Your task to perform on an android device: toggle notification dots Image 0: 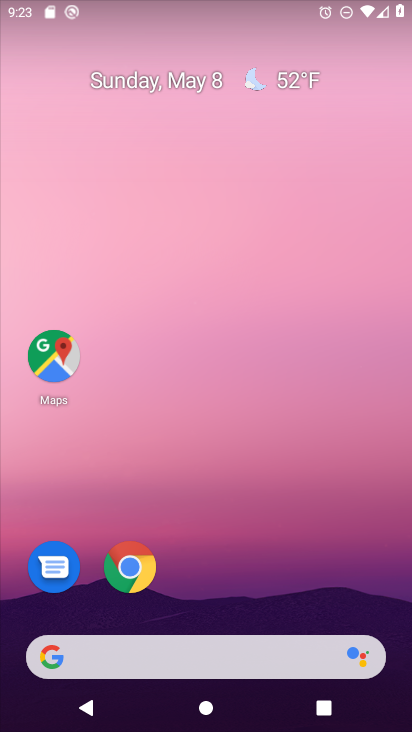
Step 0: drag from (310, 601) to (152, 105)
Your task to perform on an android device: toggle notification dots Image 1: 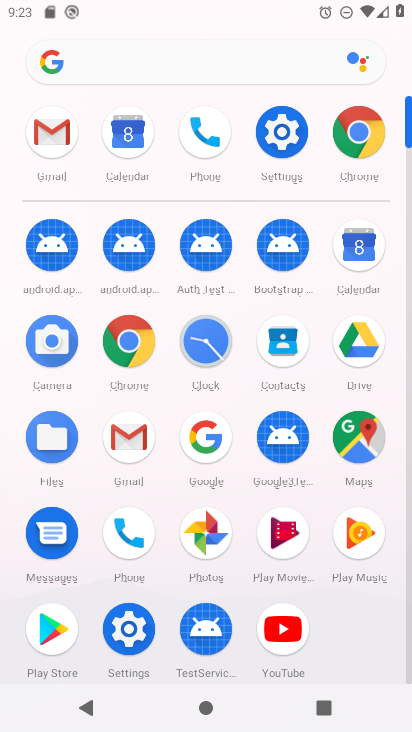
Step 1: click (272, 140)
Your task to perform on an android device: toggle notification dots Image 2: 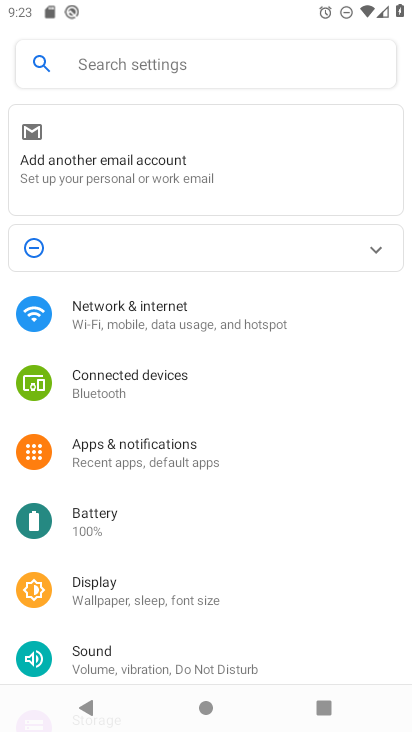
Step 2: click (193, 456)
Your task to perform on an android device: toggle notification dots Image 3: 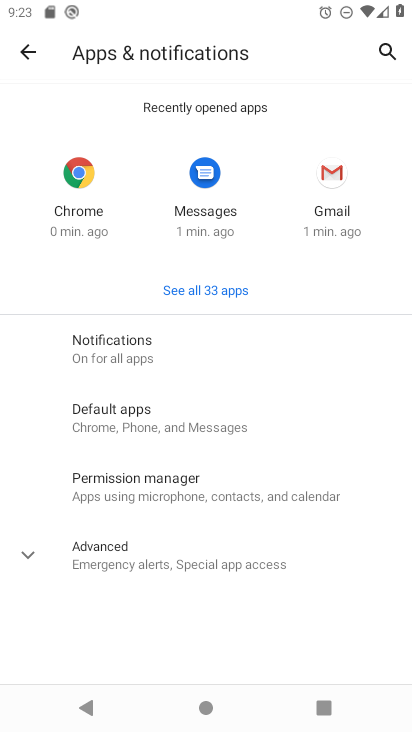
Step 3: click (102, 368)
Your task to perform on an android device: toggle notification dots Image 4: 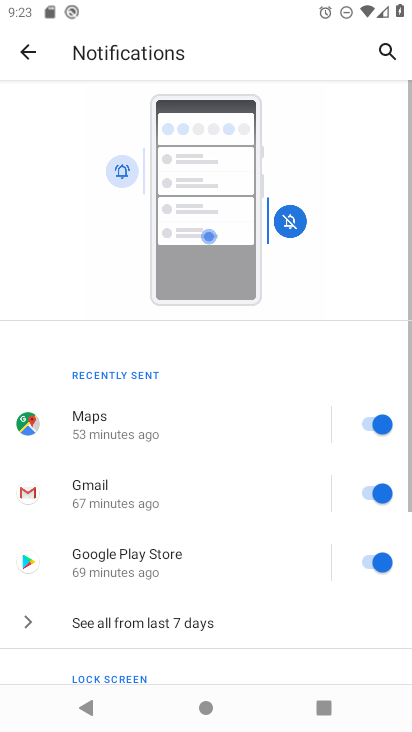
Step 4: drag from (232, 606) to (155, 254)
Your task to perform on an android device: toggle notification dots Image 5: 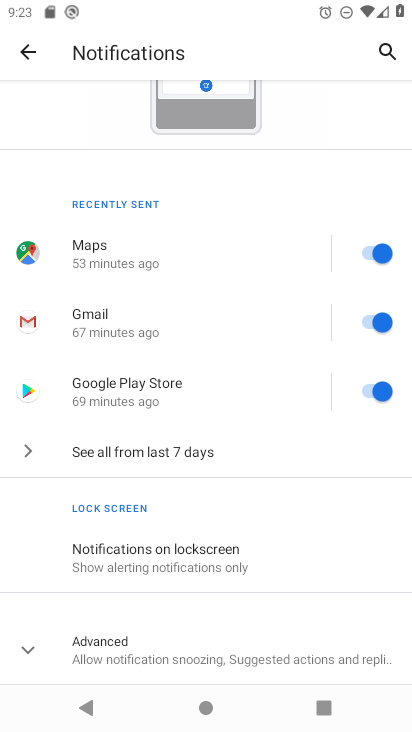
Step 5: drag from (192, 567) to (149, 254)
Your task to perform on an android device: toggle notification dots Image 6: 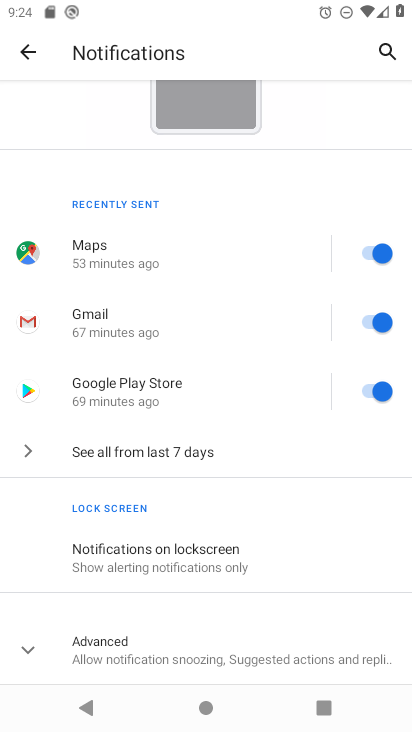
Step 6: click (148, 646)
Your task to perform on an android device: toggle notification dots Image 7: 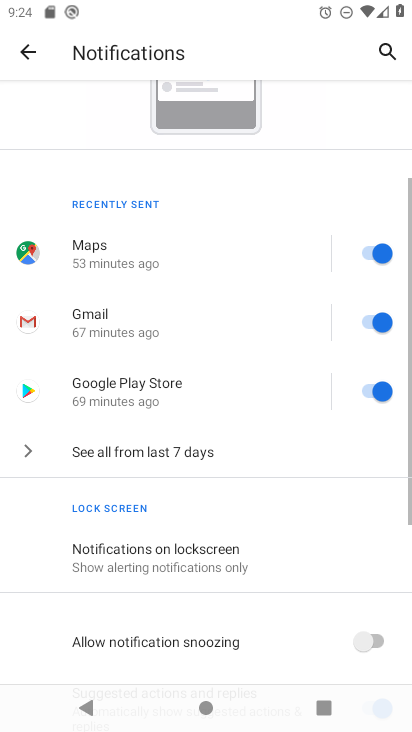
Step 7: drag from (148, 645) to (80, 293)
Your task to perform on an android device: toggle notification dots Image 8: 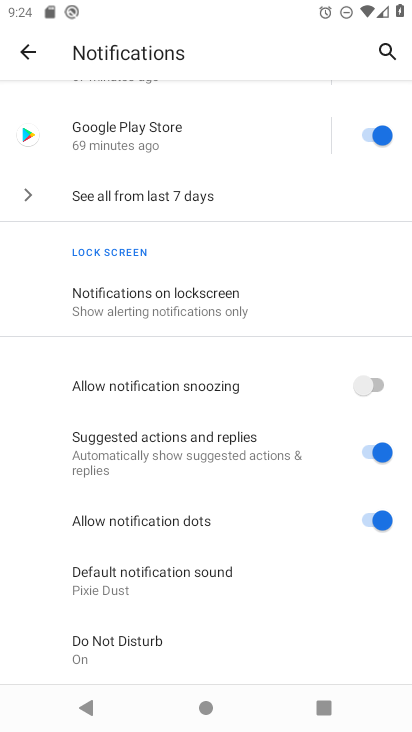
Step 8: click (373, 514)
Your task to perform on an android device: toggle notification dots Image 9: 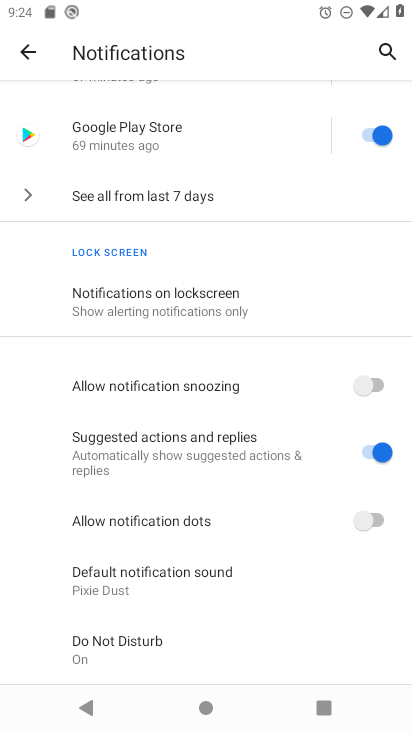
Step 9: task complete